Your task to perform on an android device: check data usage Image 0: 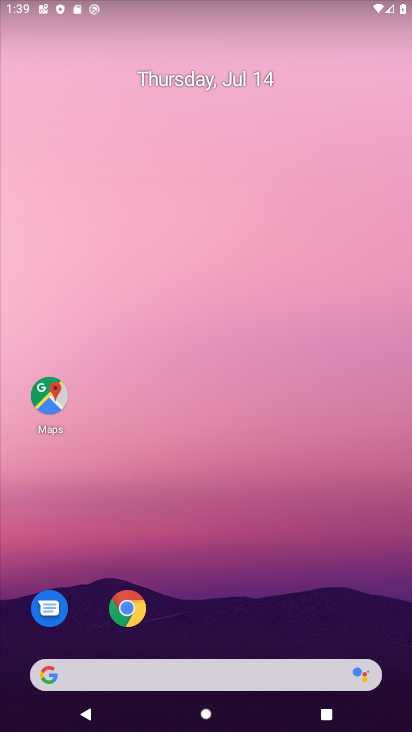
Step 0: drag from (392, 632) to (323, 116)
Your task to perform on an android device: check data usage Image 1: 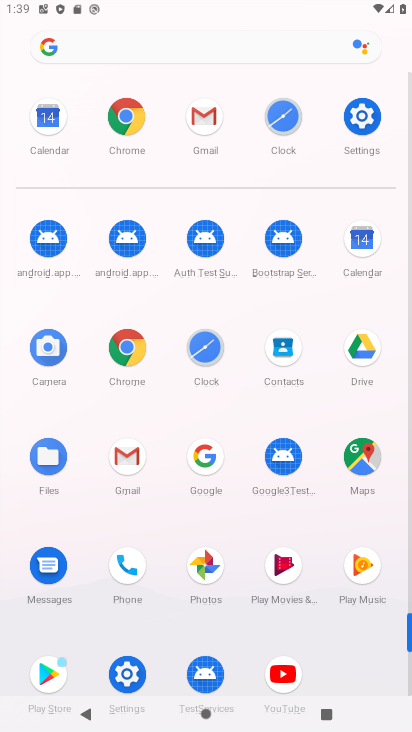
Step 1: click (126, 676)
Your task to perform on an android device: check data usage Image 2: 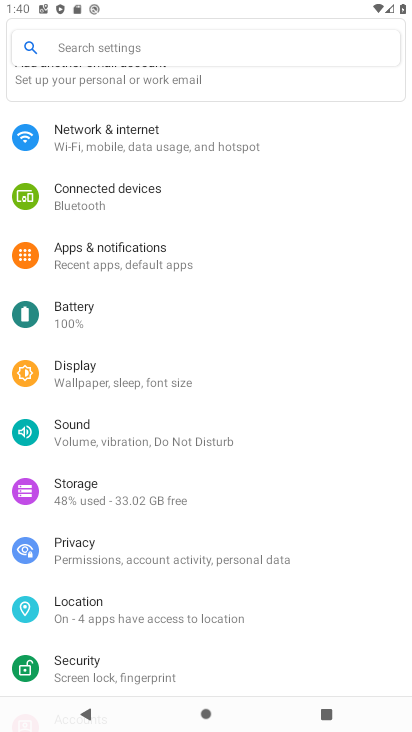
Step 2: click (99, 131)
Your task to perform on an android device: check data usage Image 3: 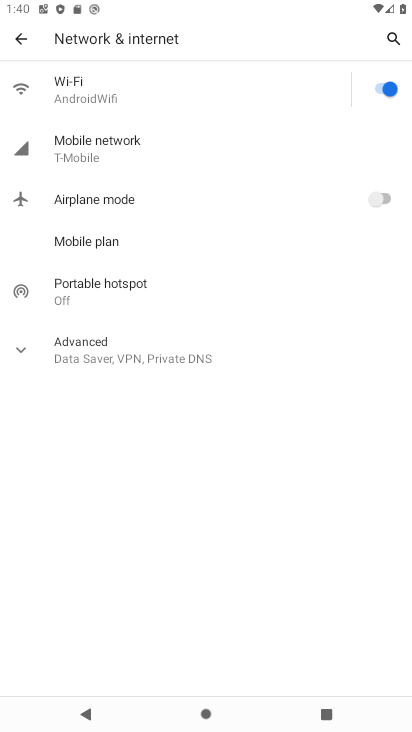
Step 3: click (91, 143)
Your task to perform on an android device: check data usage Image 4: 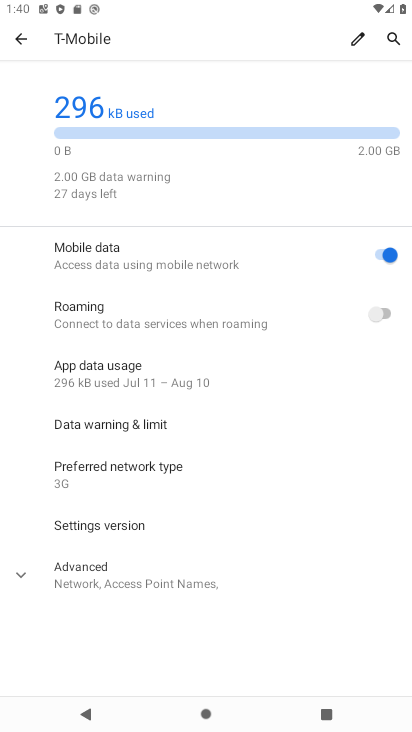
Step 4: task complete